Your task to perform on an android device: turn off data saver in the chrome app Image 0: 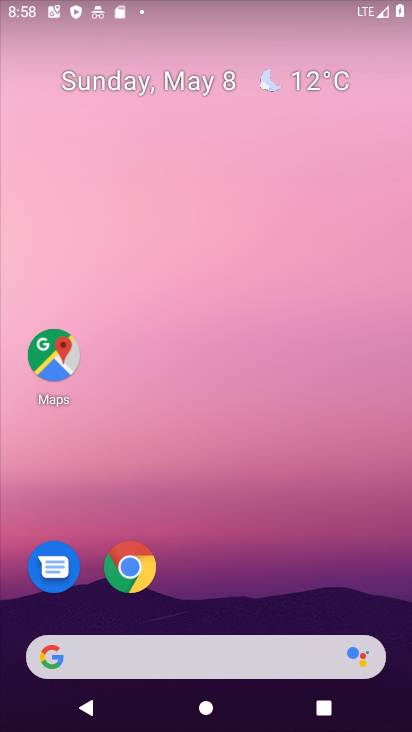
Step 0: click (102, 558)
Your task to perform on an android device: turn off data saver in the chrome app Image 1: 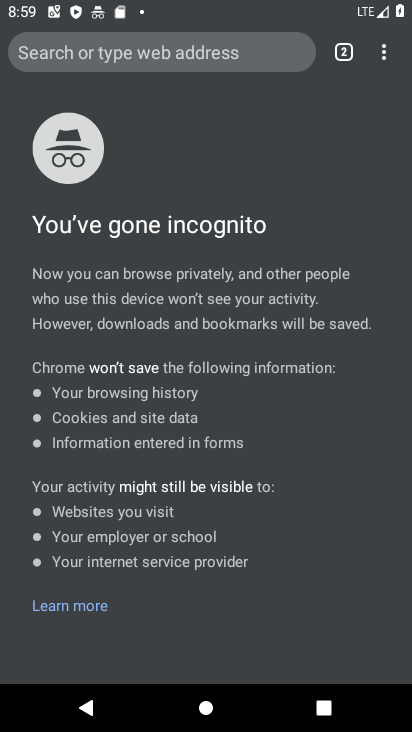
Step 1: drag from (372, 62) to (248, 445)
Your task to perform on an android device: turn off data saver in the chrome app Image 2: 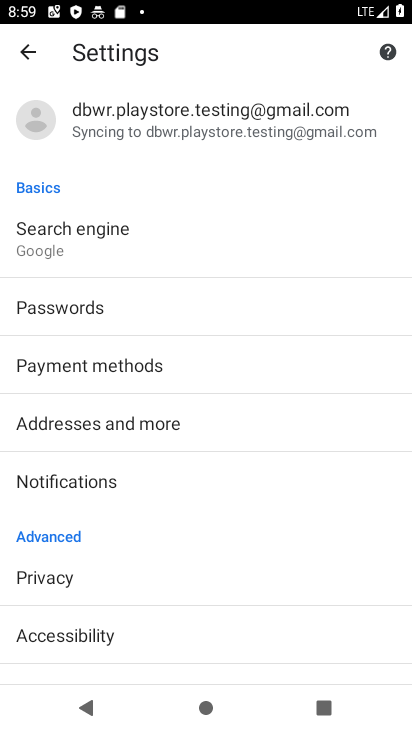
Step 2: drag from (37, 593) to (47, 11)
Your task to perform on an android device: turn off data saver in the chrome app Image 3: 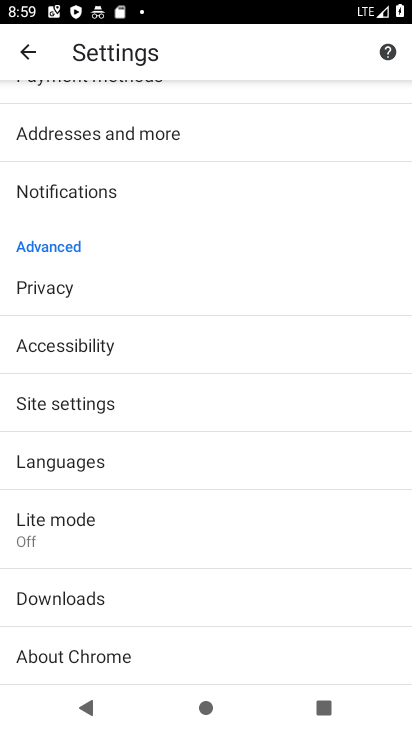
Step 3: click (61, 527)
Your task to perform on an android device: turn off data saver in the chrome app Image 4: 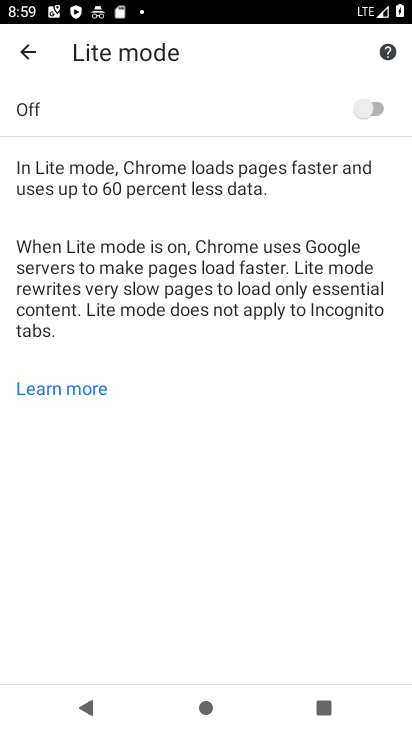
Step 4: task complete